Your task to perform on an android device: remove spam from my inbox in the gmail app Image 0: 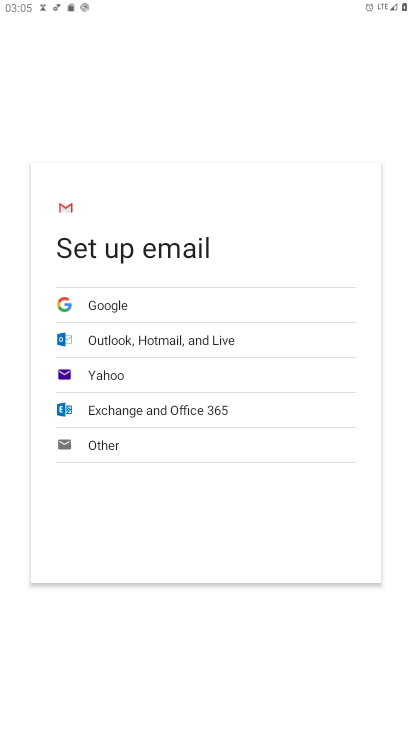
Step 0: press home button
Your task to perform on an android device: remove spam from my inbox in the gmail app Image 1: 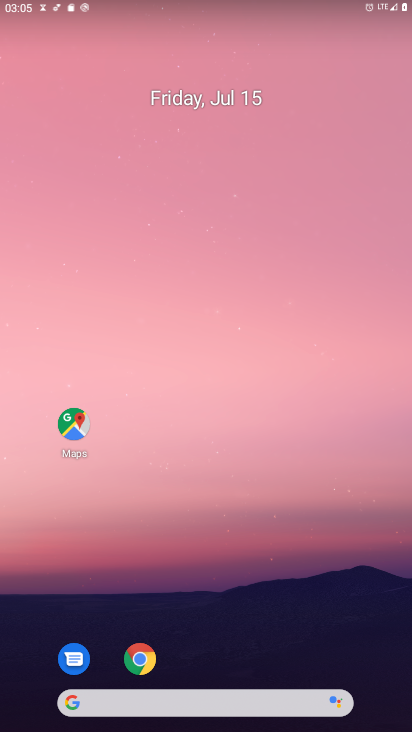
Step 1: drag from (160, 642) to (174, 97)
Your task to perform on an android device: remove spam from my inbox in the gmail app Image 2: 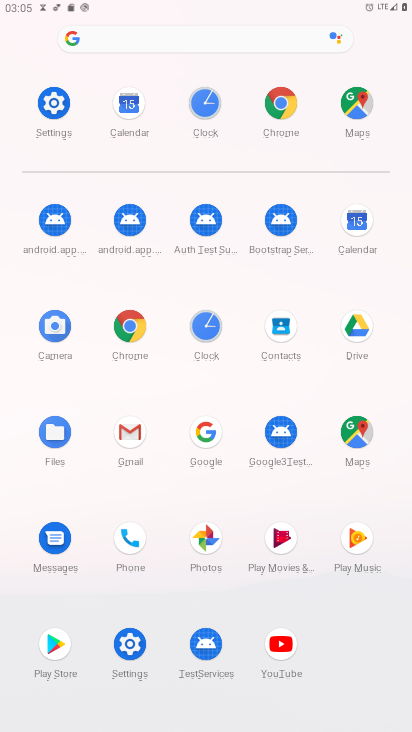
Step 2: click (122, 442)
Your task to perform on an android device: remove spam from my inbox in the gmail app Image 3: 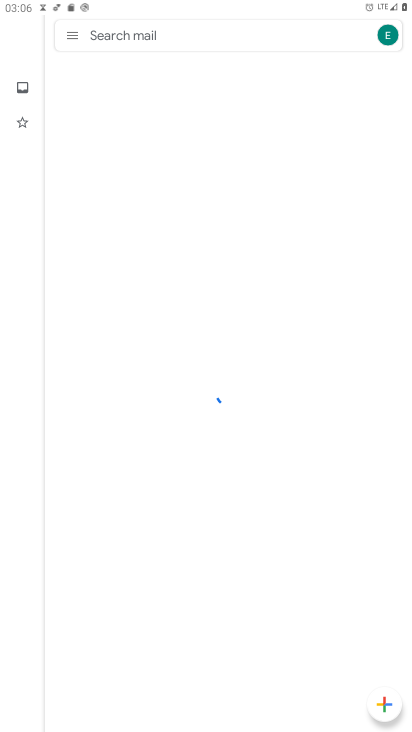
Step 3: click (63, 29)
Your task to perform on an android device: remove spam from my inbox in the gmail app Image 4: 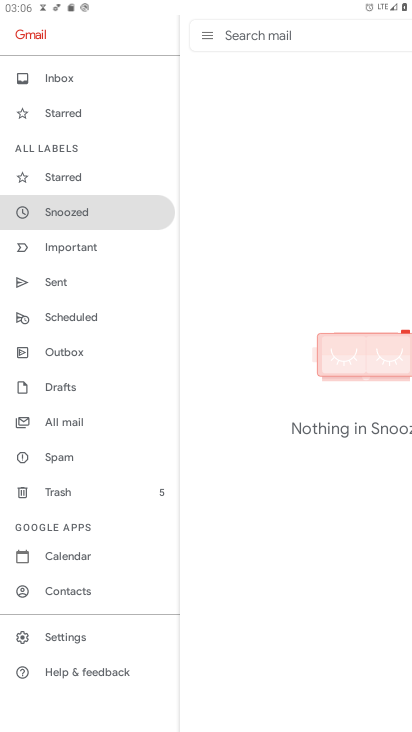
Step 4: click (78, 450)
Your task to perform on an android device: remove spam from my inbox in the gmail app Image 5: 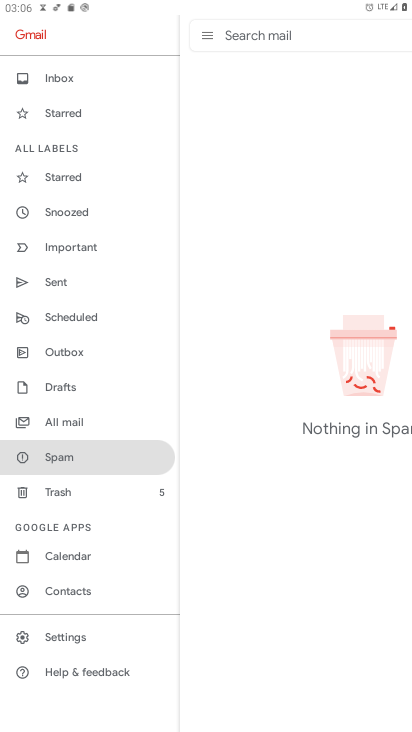
Step 5: task complete